Your task to perform on an android device: set an alarm Image 0: 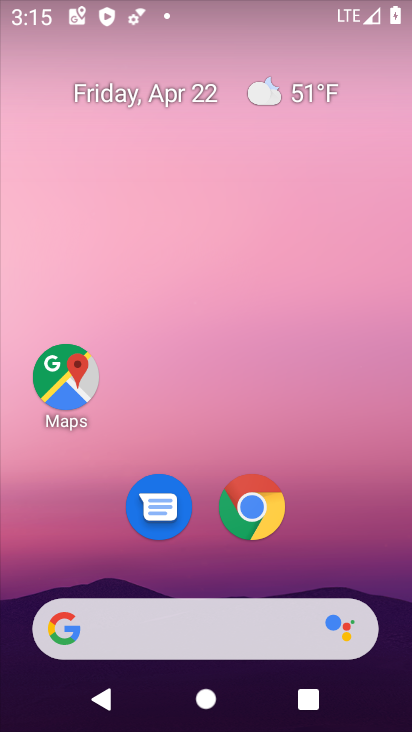
Step 0: drag from (188, 578) to (174, 5)
Your task to perform on an android device: set an alarm Image 1: 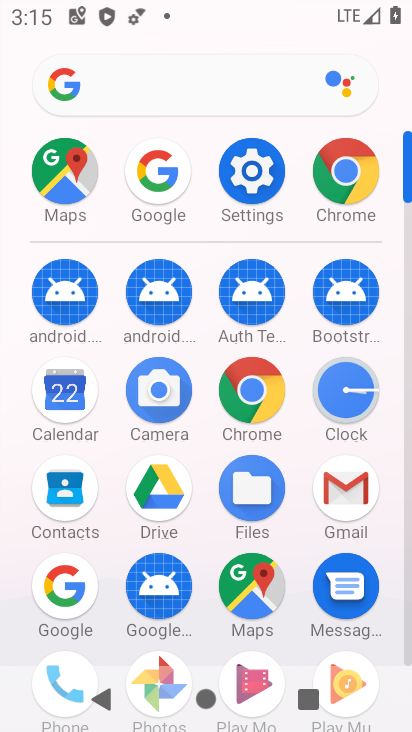
Step 1: click (341, 402)
Your task to perform on an android device: set an alarm Image 2: 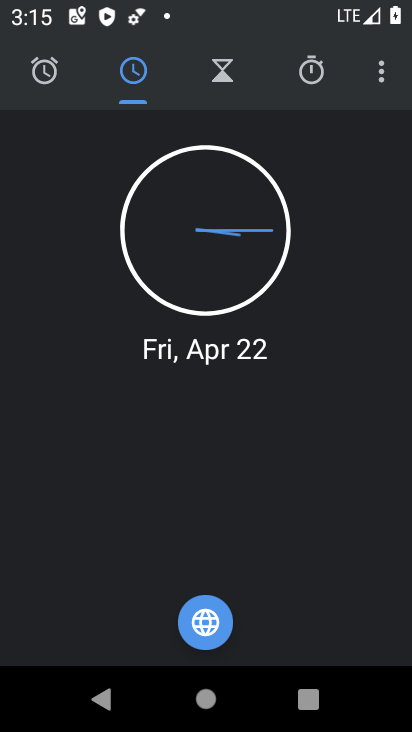
Step 2: click (49, 67)
Your task to perform on an android device: set an alarm Image 3: 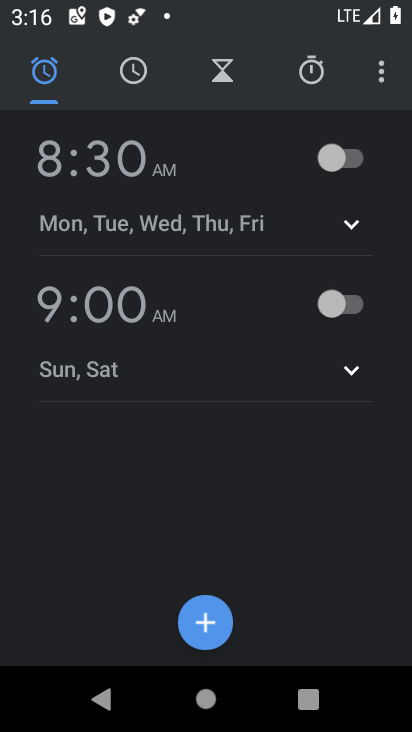
Step 3: click (216, 621)
Your task to perform on an android device: set an alarm Image 4: 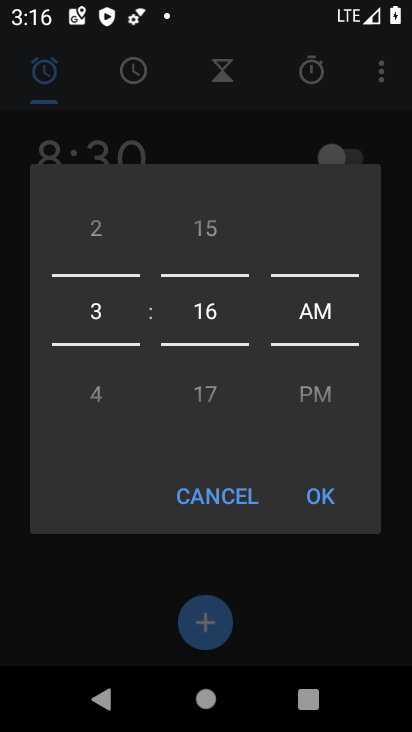
Step 4: click (326, 509)
Your task to perform on an android device: set an alarm Image 5: 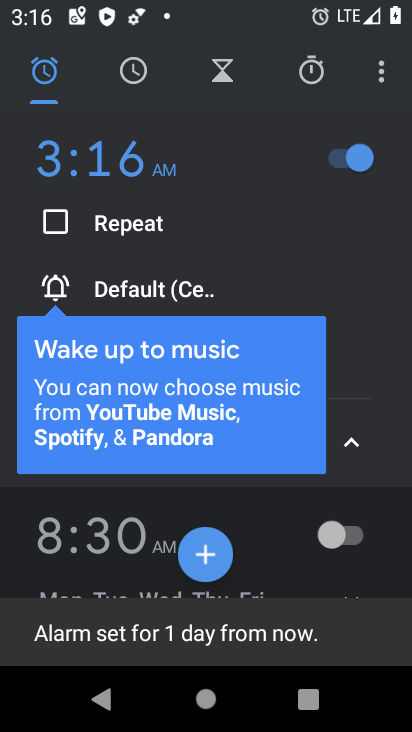
Step 5: task complete